Your task to perform on an android device: Open Yahoo.com Image 0: 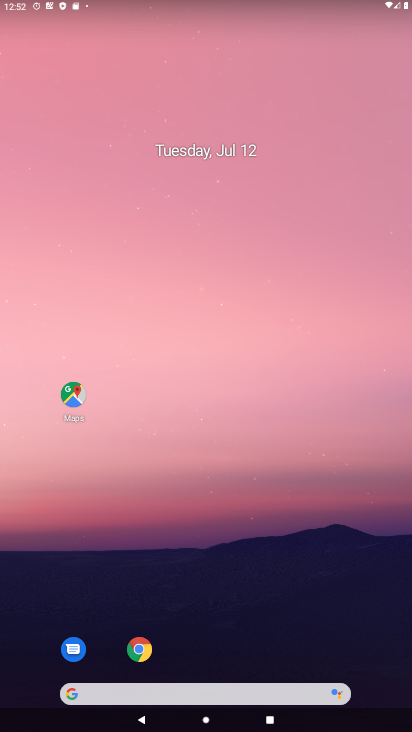
Step 0: drag from (308, 618) to (243, 259)
Your task to perform on an android device: Open Yahoo.com Image 1: 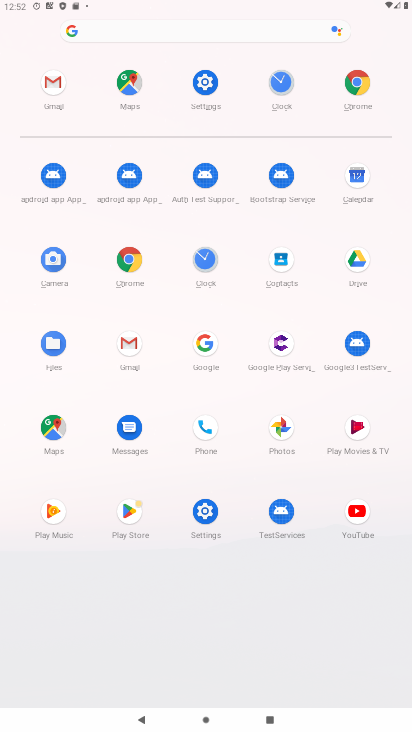
Step 1: click (217, 341)
Your task to perform on an android device: Open Yahoo.com Image 2: 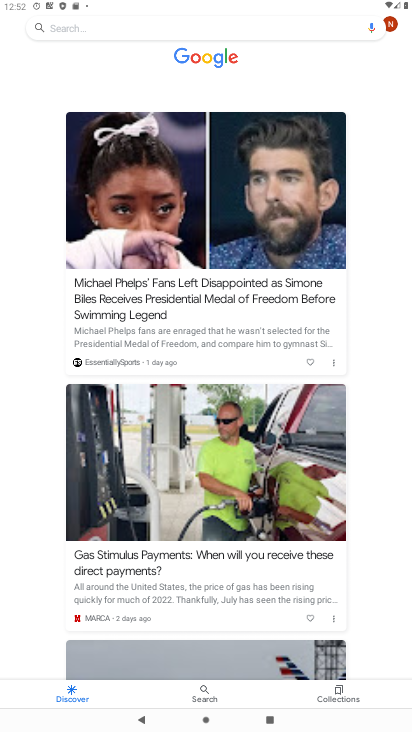
Step 2: click (155, 27)
Your task to perform on an android device: Open Yahoo.com Image 3: 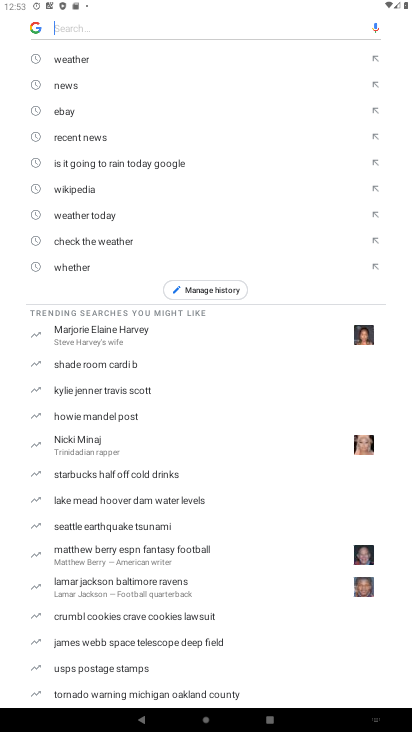
Step 3: type "yahoo.com"
Your task to perform on an android device: Open Yahoo.com Image 4: 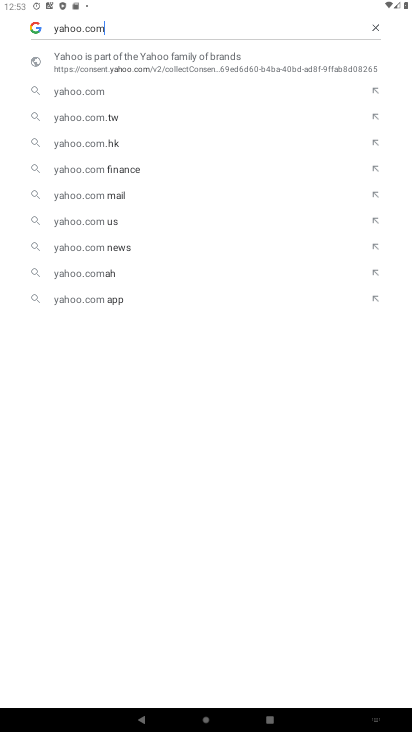
Step 4: click (94, 59)
Your task to perform on an android device: Open Yahoo.com Image 5: 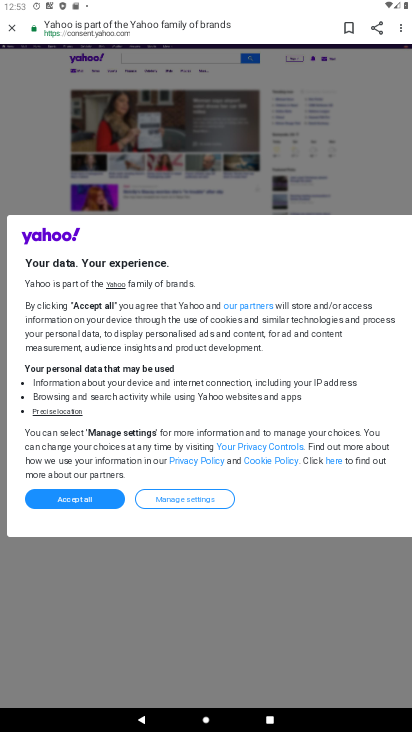
Step 5: task complete